Your task to perform on an android device: open chrome and create a bookmark for the current page Image 0: 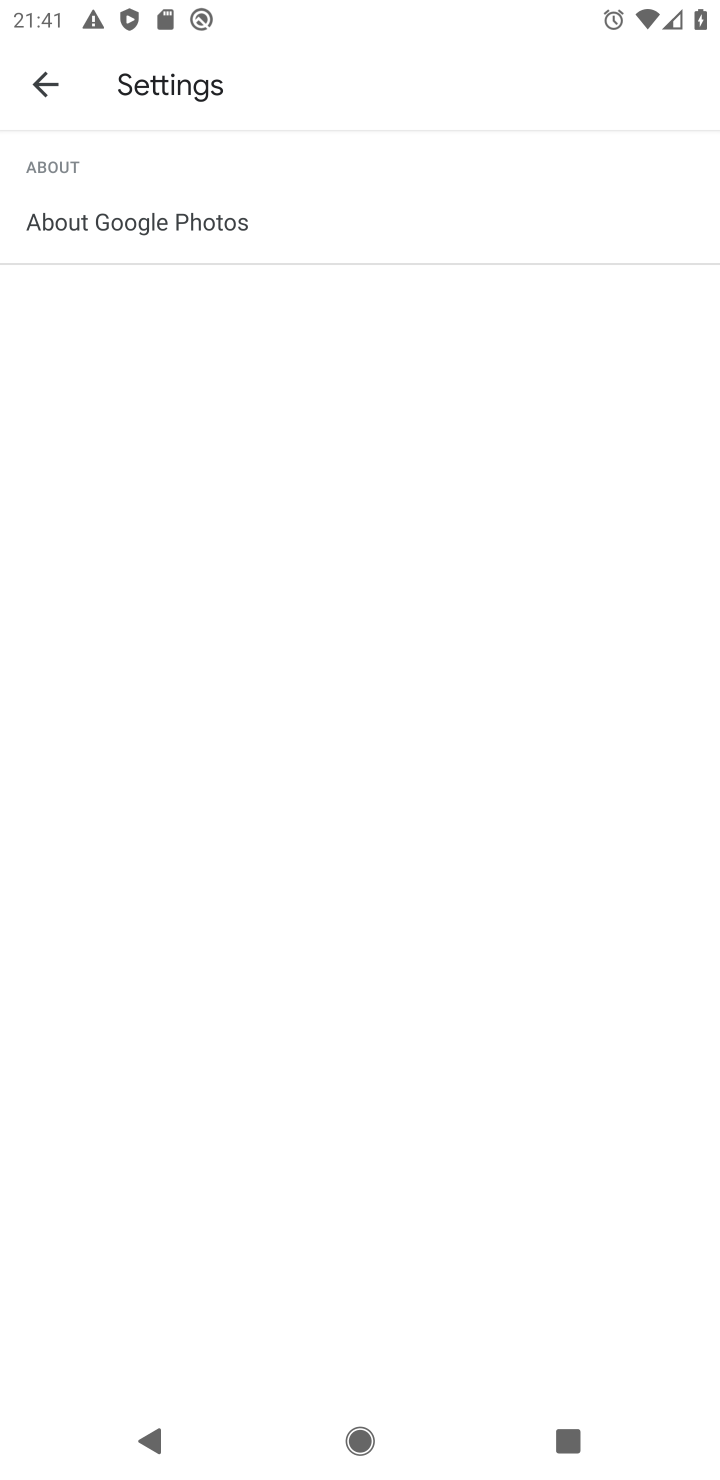
Step 0: press home button
Your task to perform on an android device: open chrome and create a bookmark for the current page Image 1: 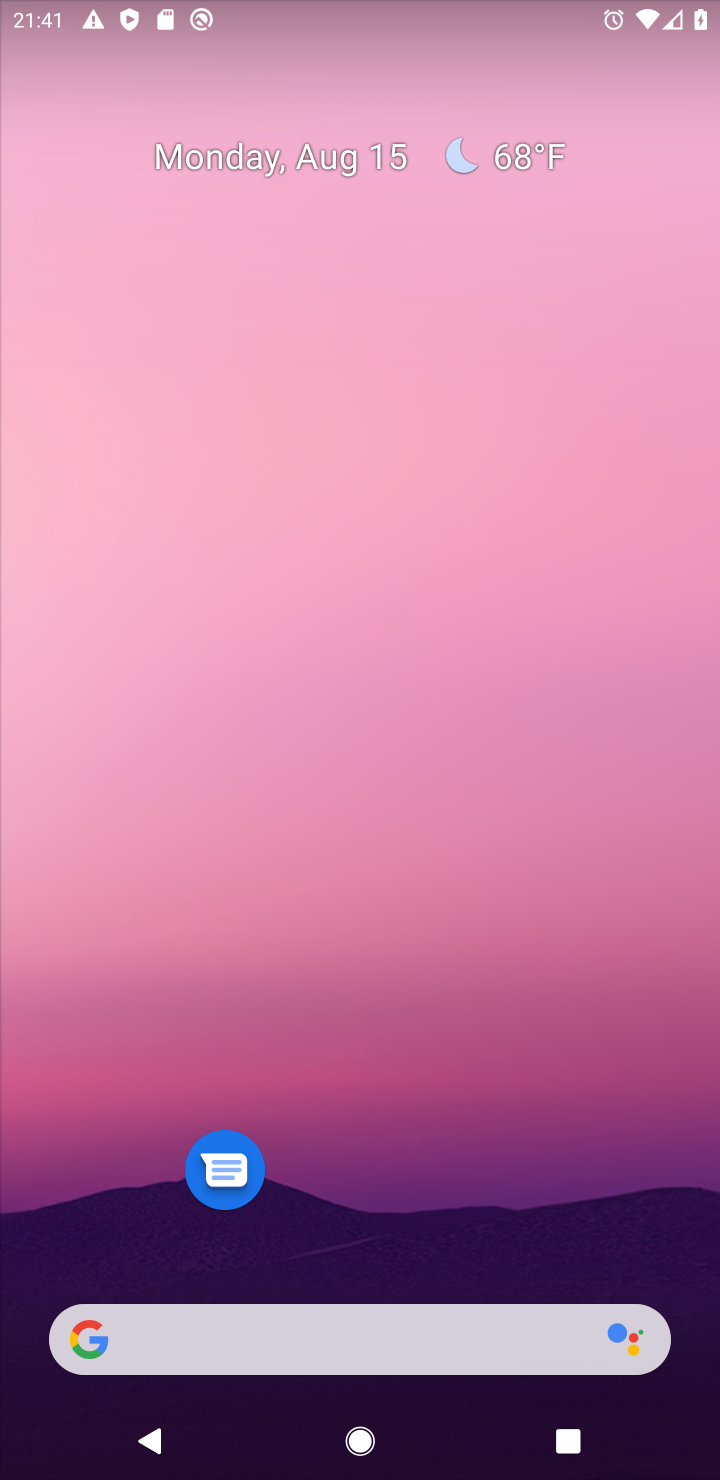
Step 1: drag from (356, 1020) to (543, 102)
Your task to perform on an android device: open chrome and create a bookmark for the current page Image 2: 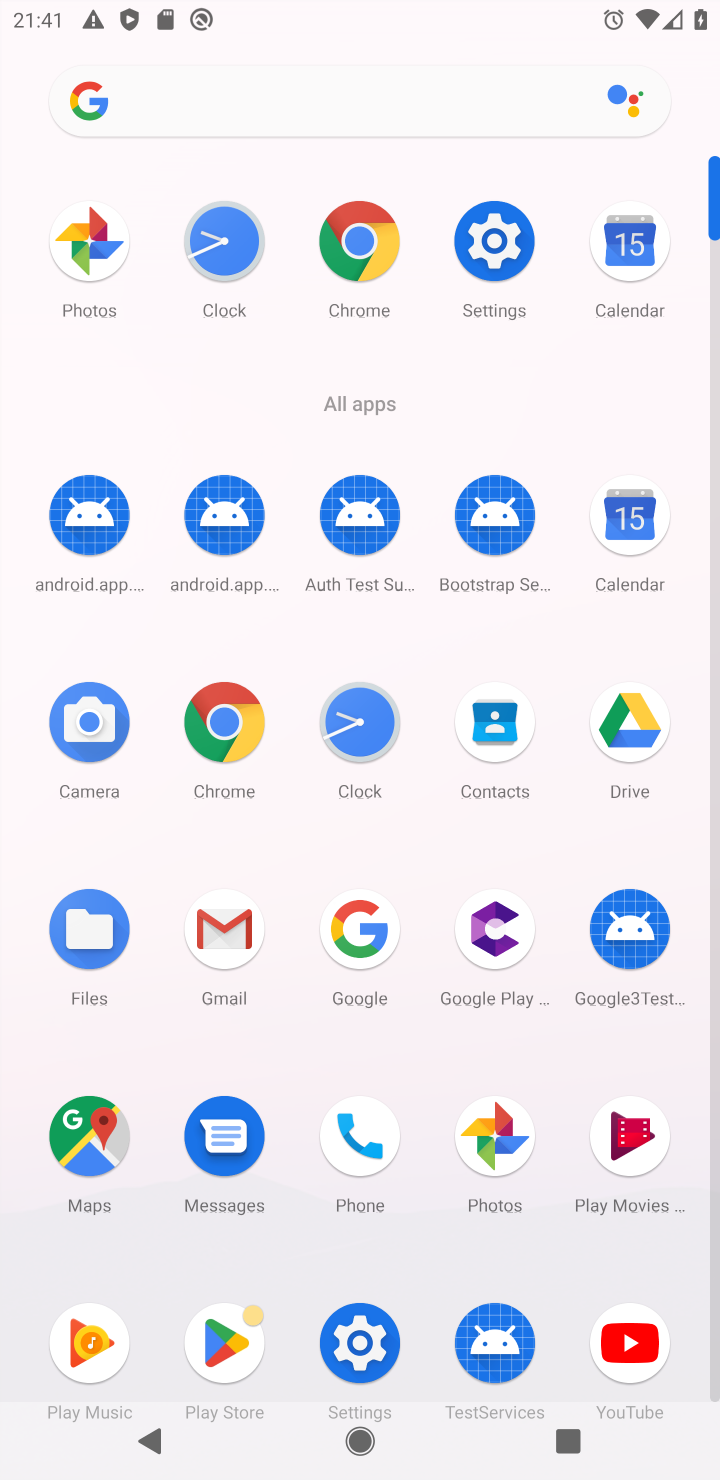
Step 2: click (378, 240)
Your task to perform on an android device: open chrome and create a bookmark for the current page Image 3: 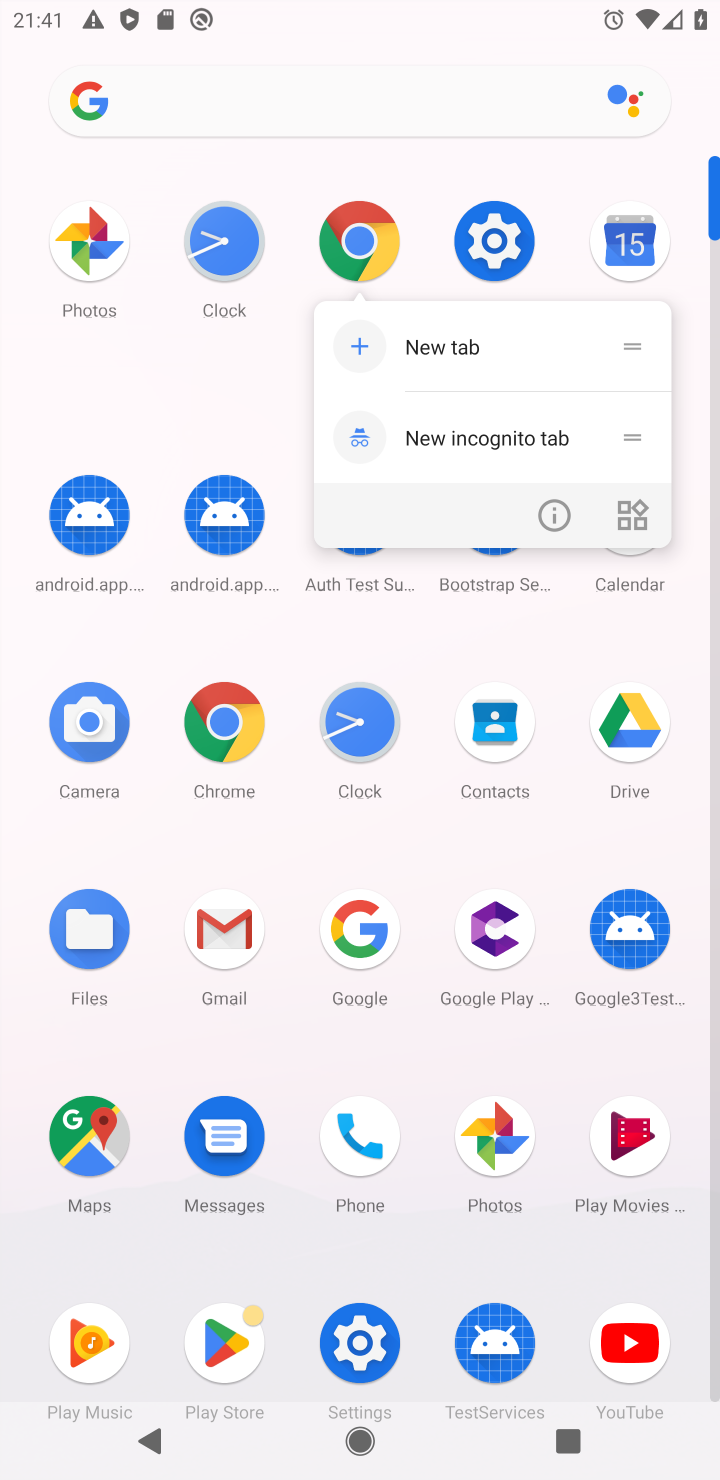
Step 3: click (374, 240)
Your task to perform on an android device: open chrome and create a bookmark for the current page Image 4: 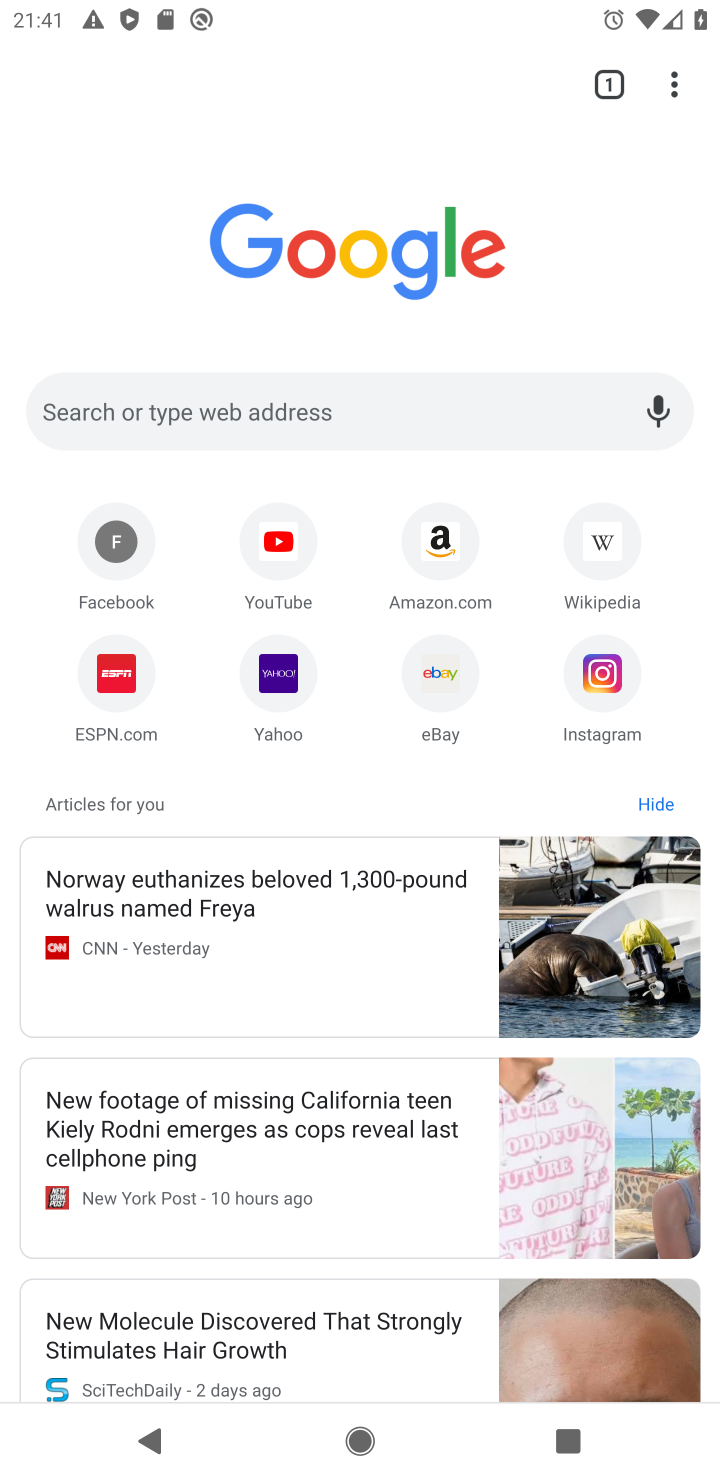
Step 4: click (372, 229)
Your task to perform on an android device: open chrome and create a bookmark for the current page Image 5: 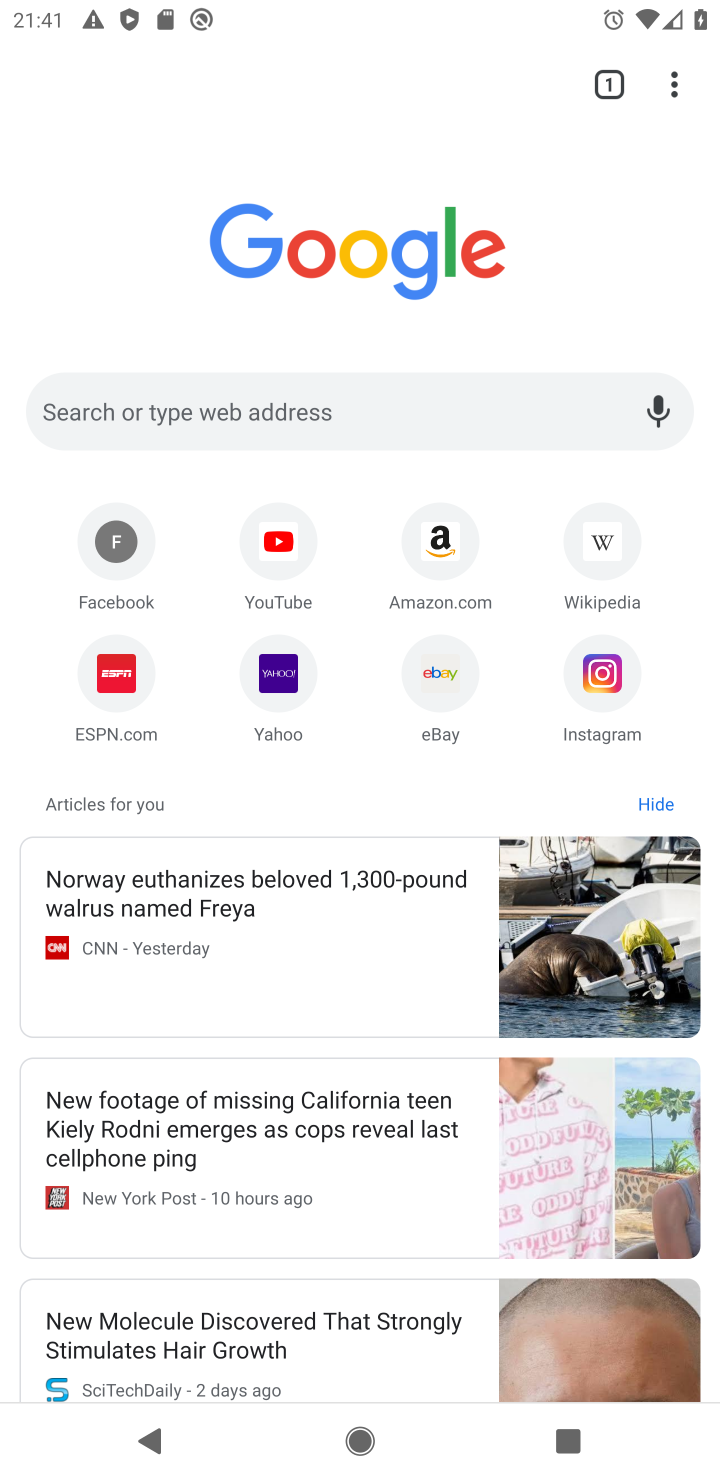
Step 5: task complete